Your task to perform on an android device: toggle show notifications on the lock screen Image 0: 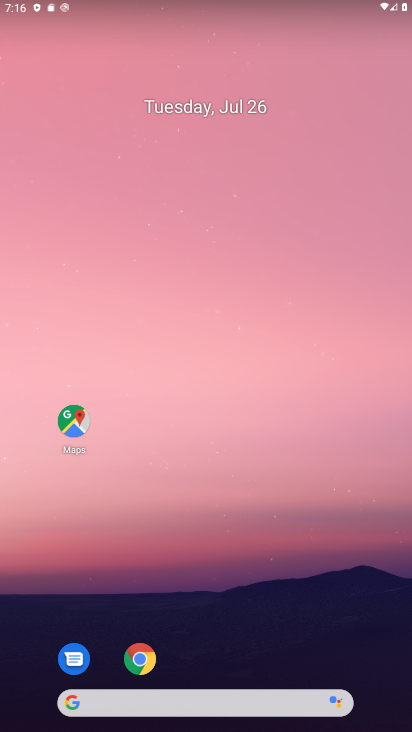
Step 0: drag from (243, 655) to (63, 49)
Your task to perform on an android device: toggle show notifications on the lock screen Image 1: 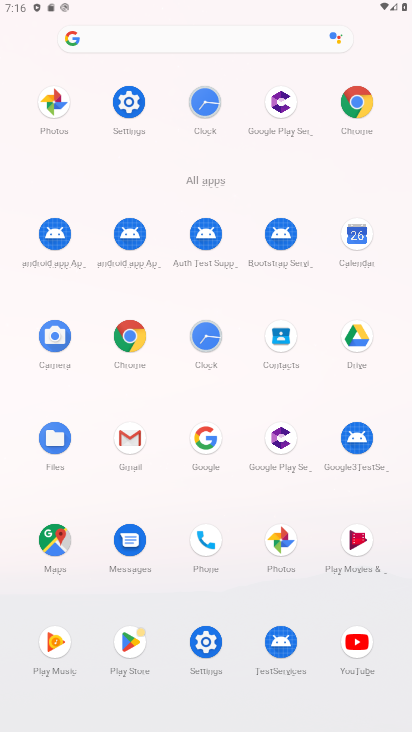
Step 1: click (123, 117)
Your task to perform on an android device: toggle show notifications on the lock screen Image 2: 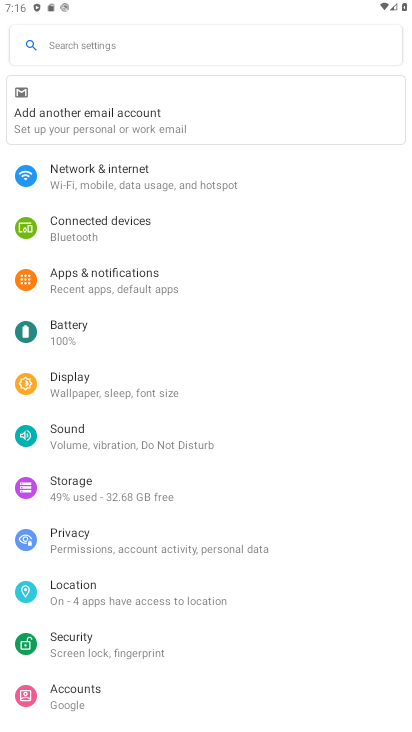
Step 2: click (97, 271)
Your task to perform on an android device: toggle show notifications on the lock screen Image 3: 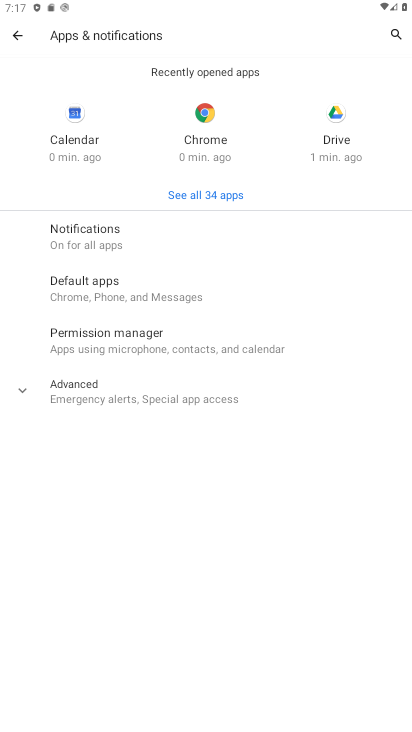
Step 3: click (84, 244)
Your task to perform on an android device: toggle show notifications on the lock screen Image 4: 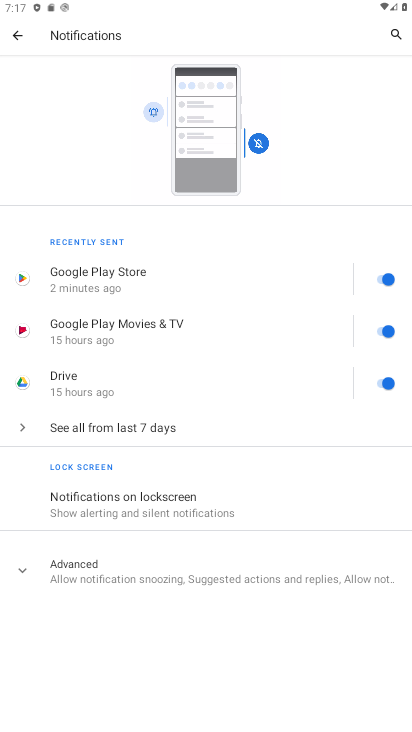
Step 4: click (160, 515)
Your task to perform on an android device: toggle show notifications on the lock screen Image 5: 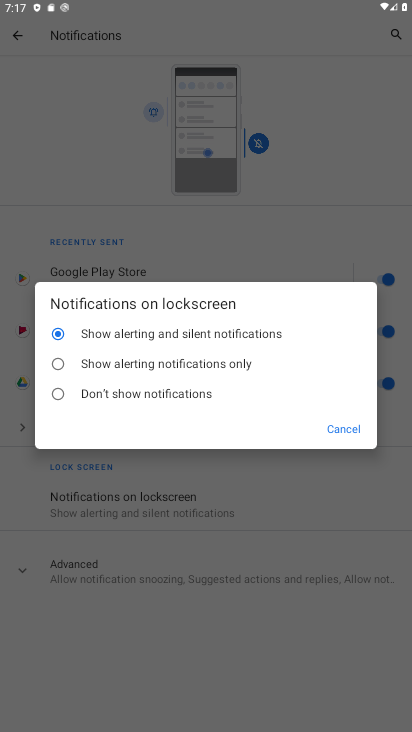
Step 5: click (55, 362)
Your task to perform on an android device: toggle show notifications on the lock screen Image 6: 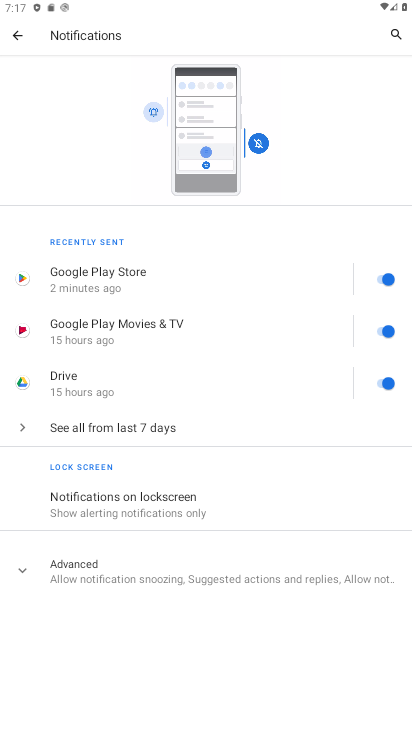
Step 6: task complete